Your task to perform on an android device: Open settings on Google Maps Image 0: 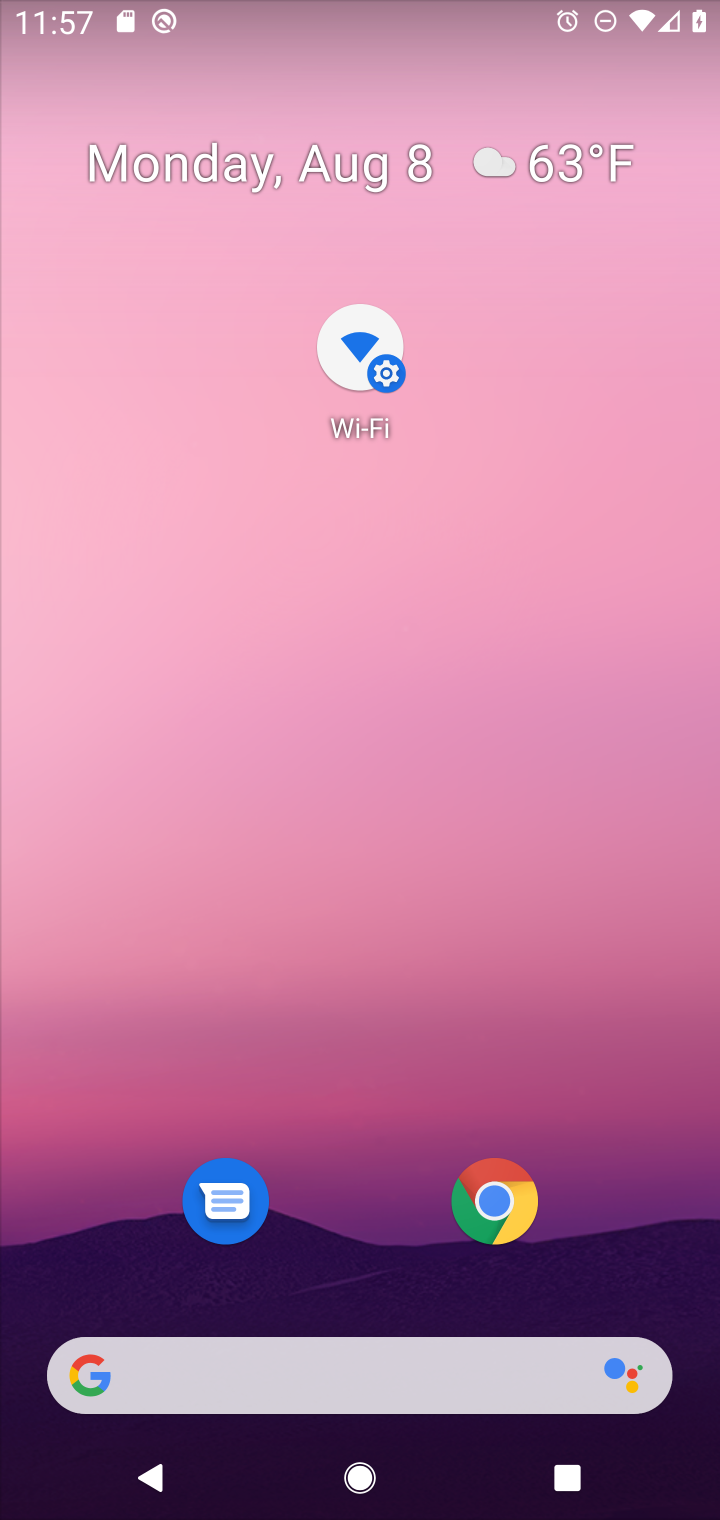
Step 0: press home button
Your task to perform on an android device: Open settings on Google Maps Image 1: 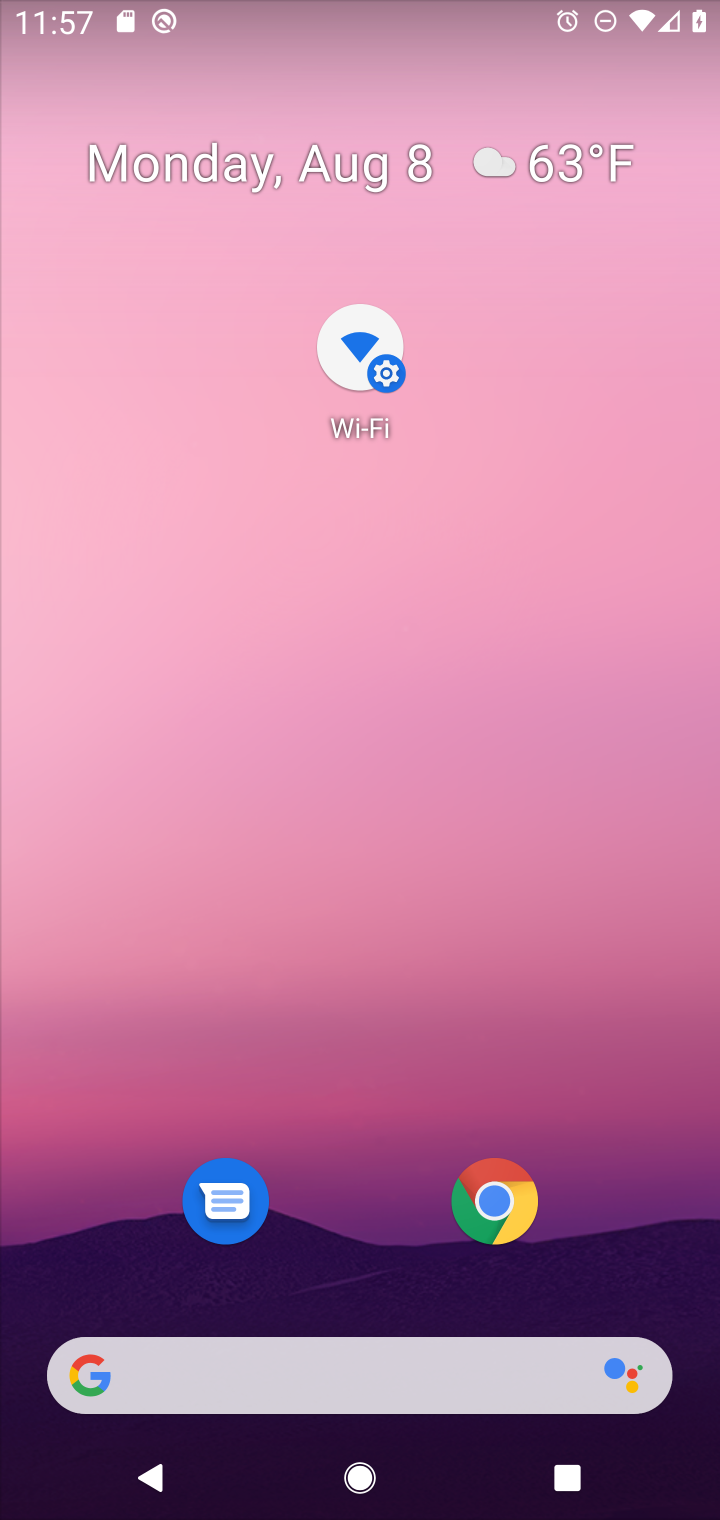
Step 1: drag from (569, 1208) to (536, 265)
Your task to perform on an android device: Open settings on Google Maps Image 2: 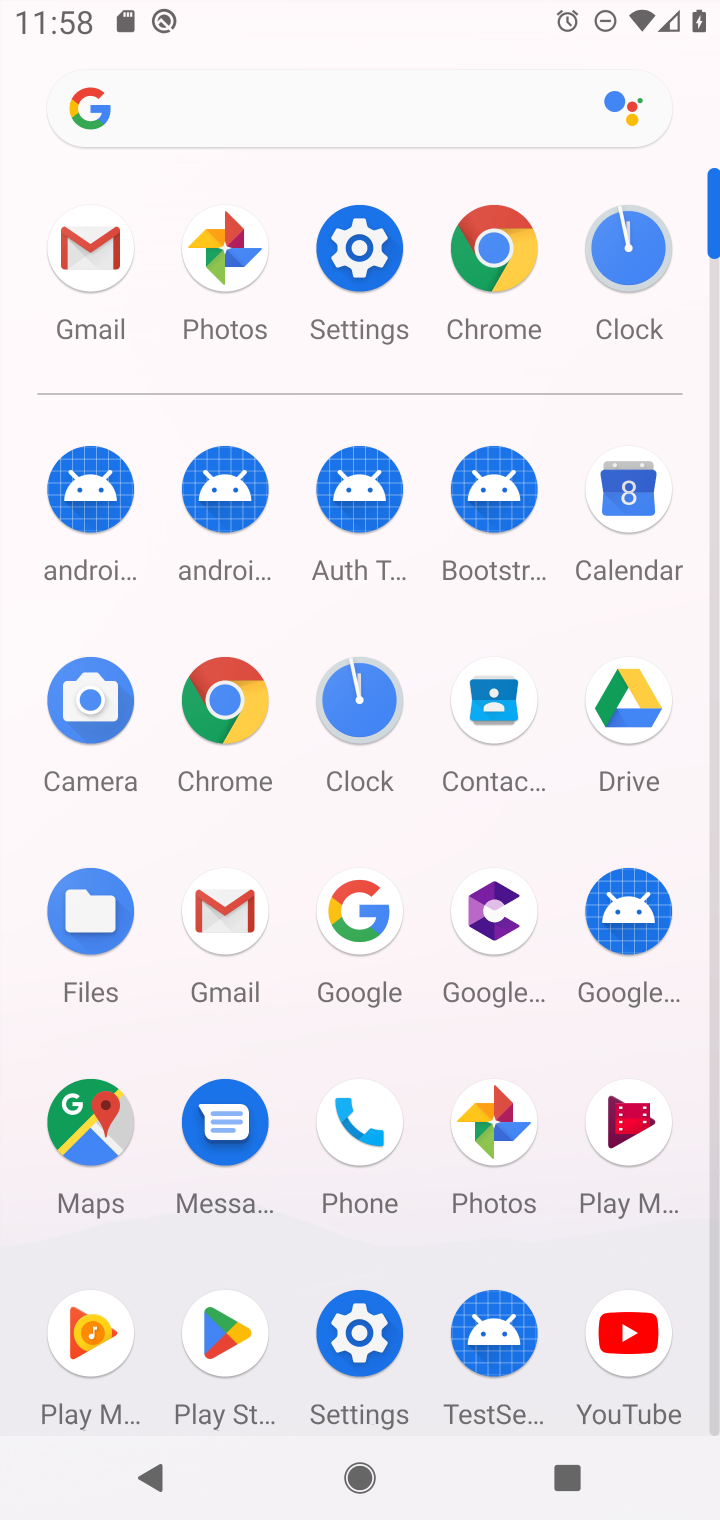
Step 2: click (99, 1108)
Your task to perform on an android device: Open settings on Google Maps Image 3: 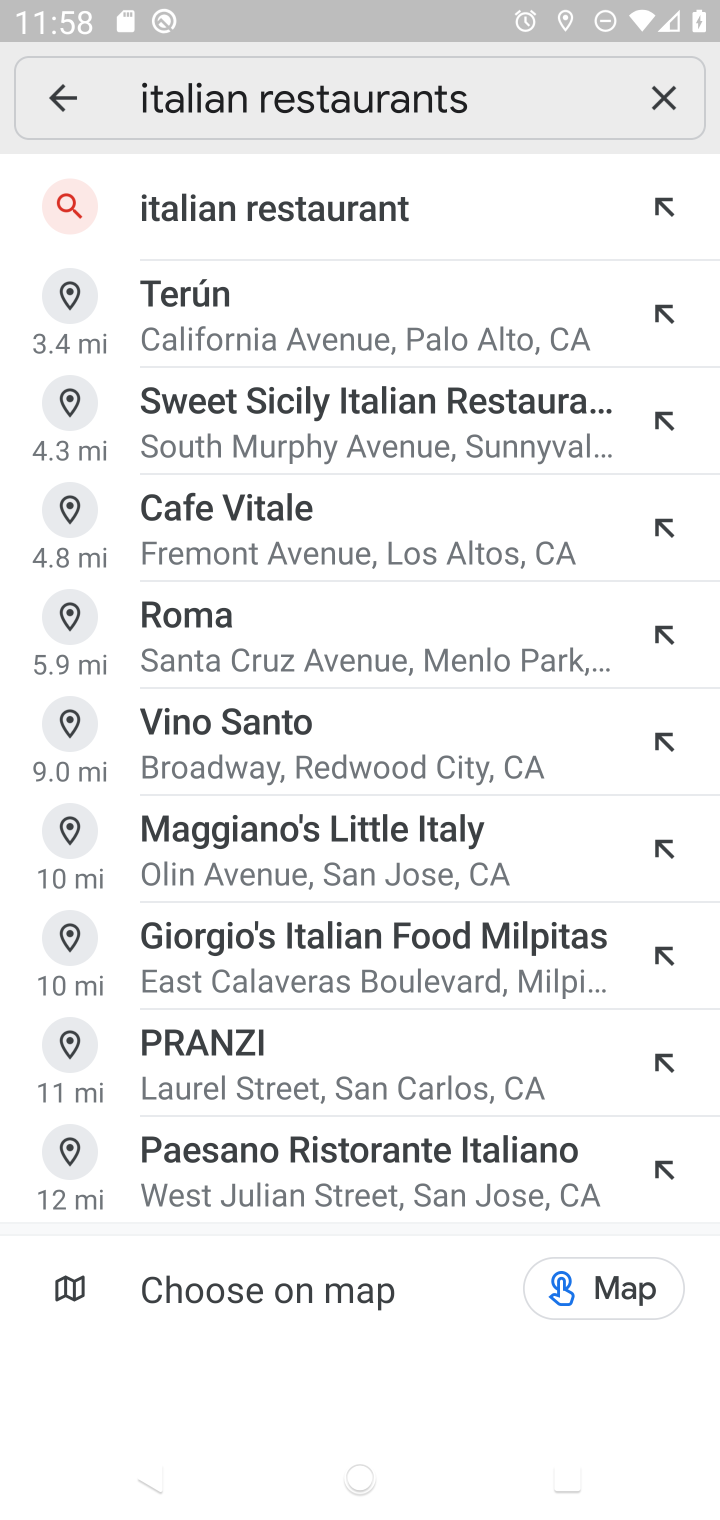
Step 3: press back button
Your task to perform on an android device: Open settings on Google Maps Image 4: 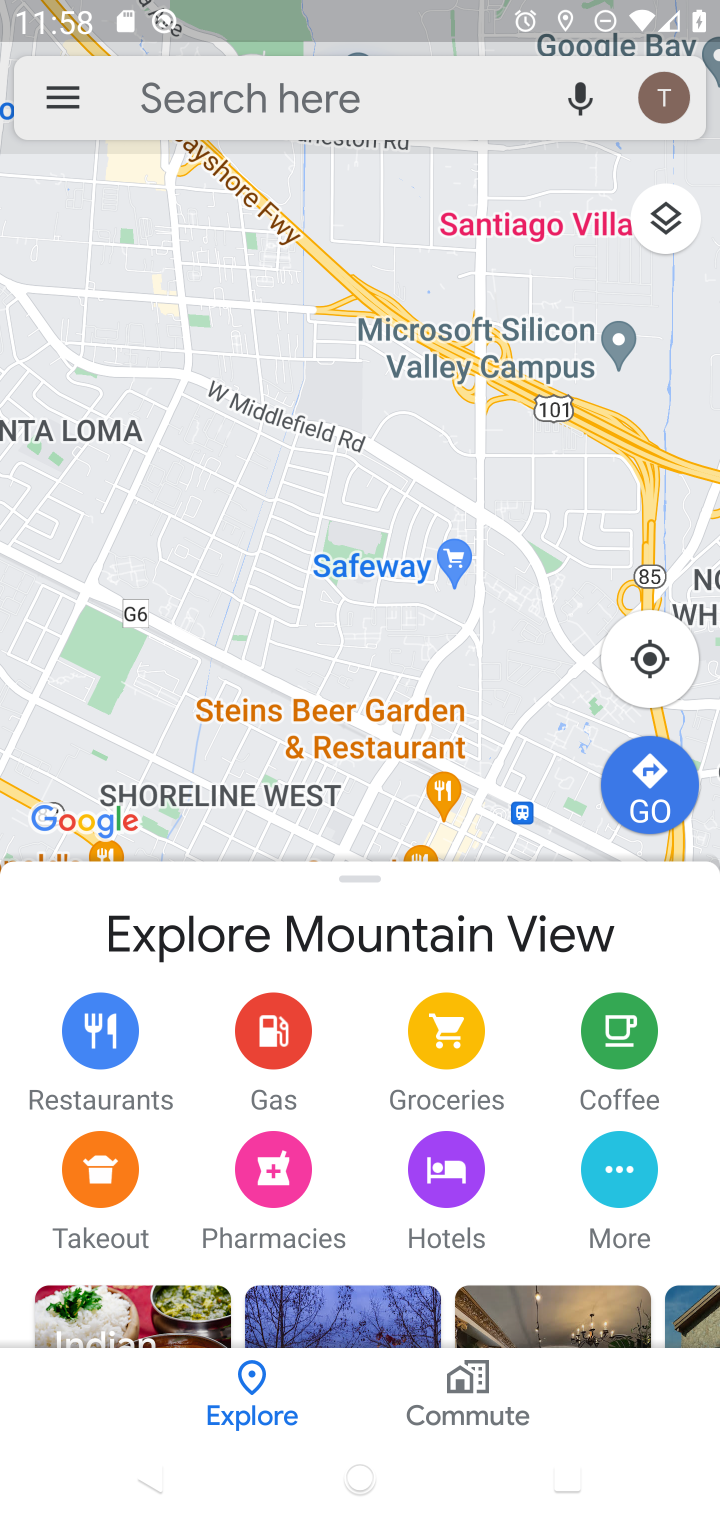
Step 4: click (65, 90)
Your task to perform on an android device: Open settings on Google Maps Image 5: 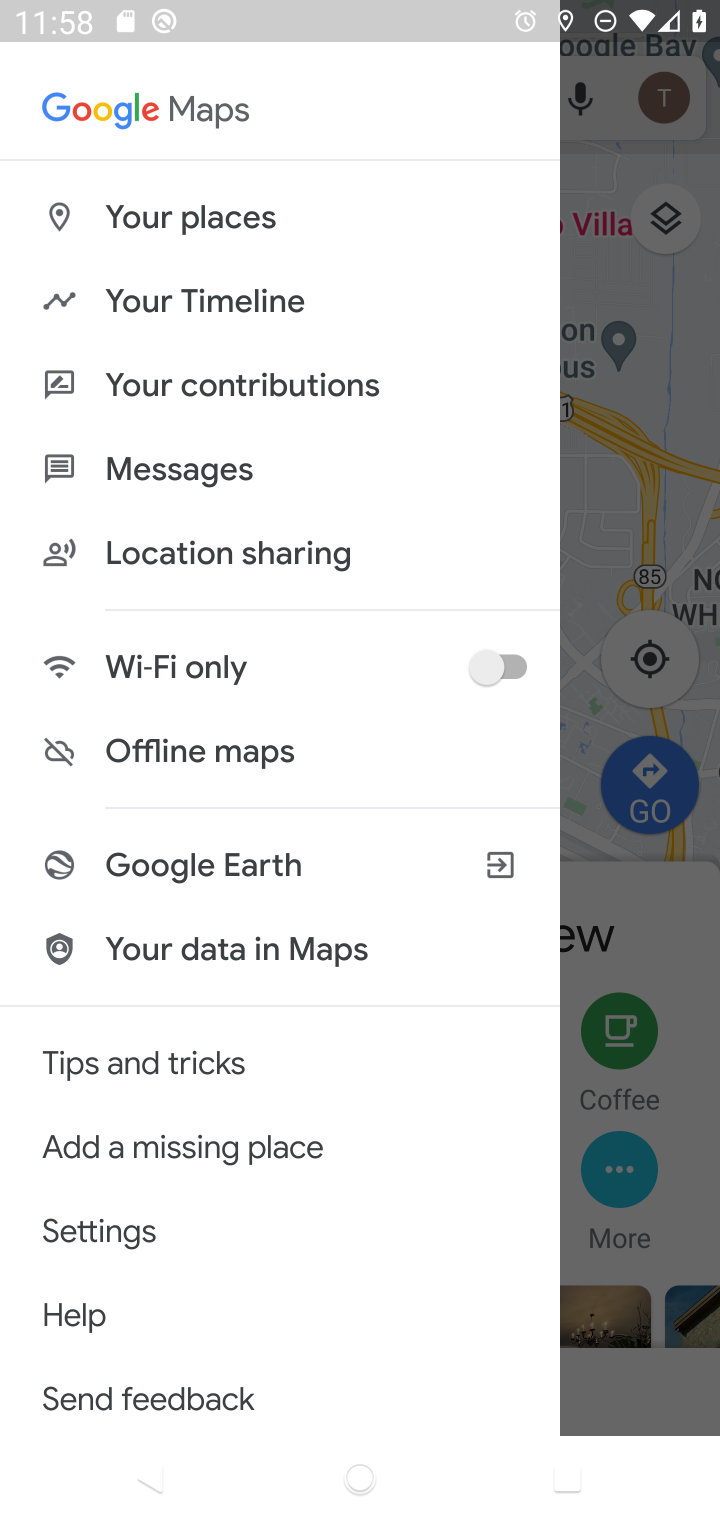
Step 5: click (134, 1215)
Your task to perform on an android device: Open settings on Google Maps Image 6: 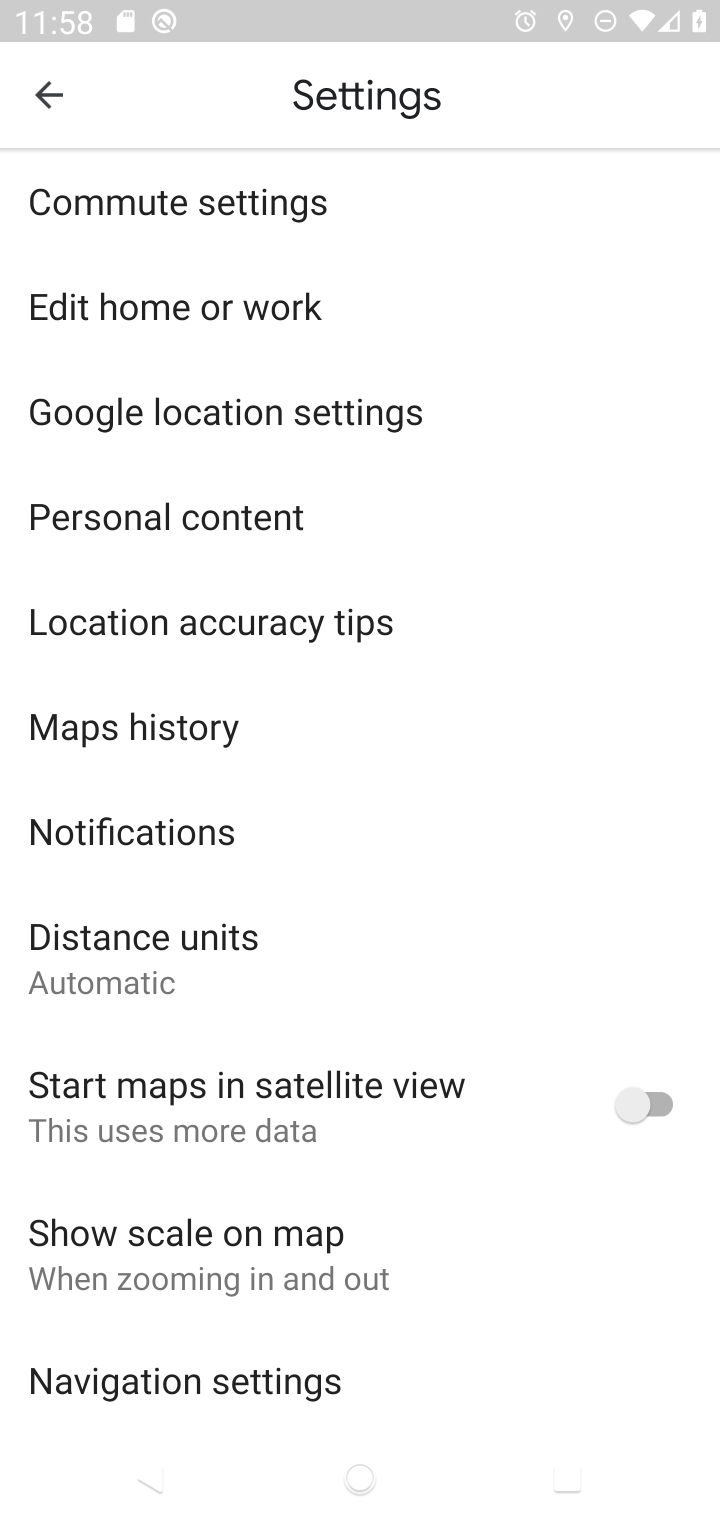
Step 6: task complete